Your task to perform on an android device: find photos in the google photos app Image 0: 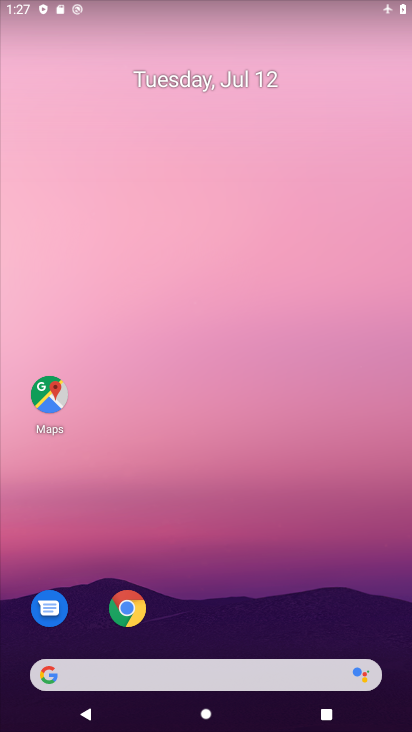
Step 0: press home button
Your task to perform on an android device: find photos in the google photos app Image 1: 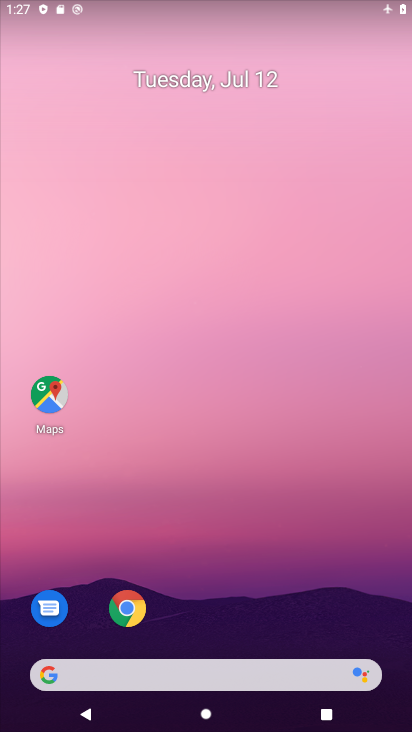
Step 1: drag from (293, 623) to (205, 7)
Your task to perform on an android device: find photos in the google photos app Image 2: 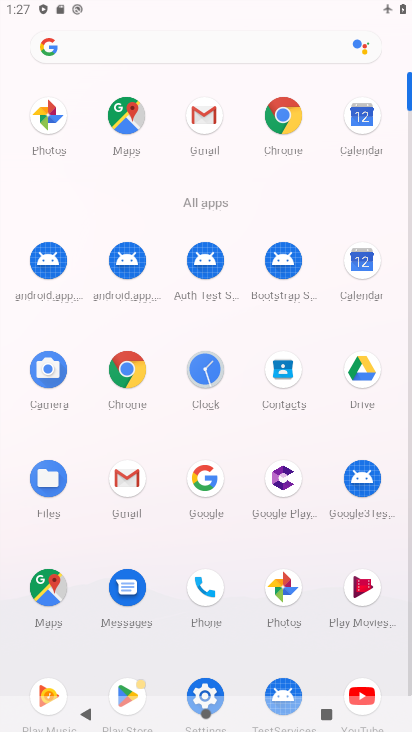
Step 2: click (286, 580)
Your task to perform on an android device: find photos in the google photos app Image 3: 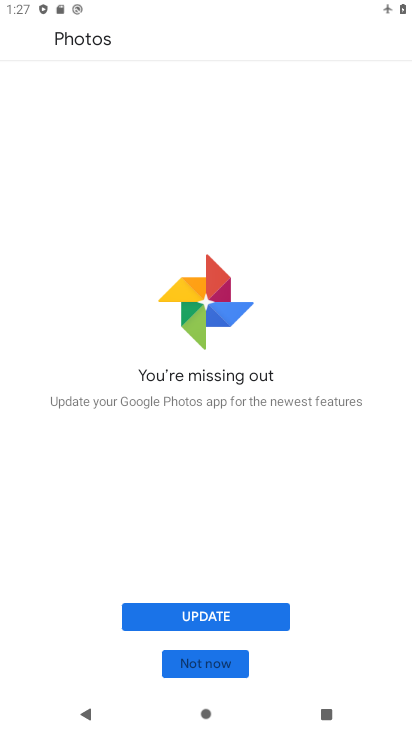
Step 3: click (213, 674)
Your task to perform on an android device: find photos in the google photos app Image 4: 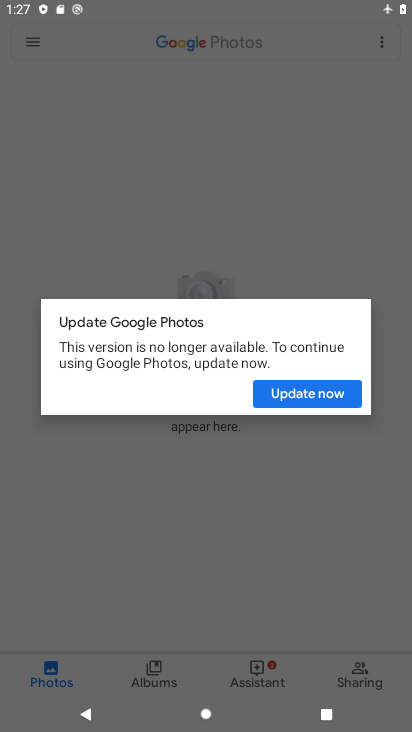
Step 4: click (282, 386)
Your task to perform on an android device: find photos in the google photos app Image 5: 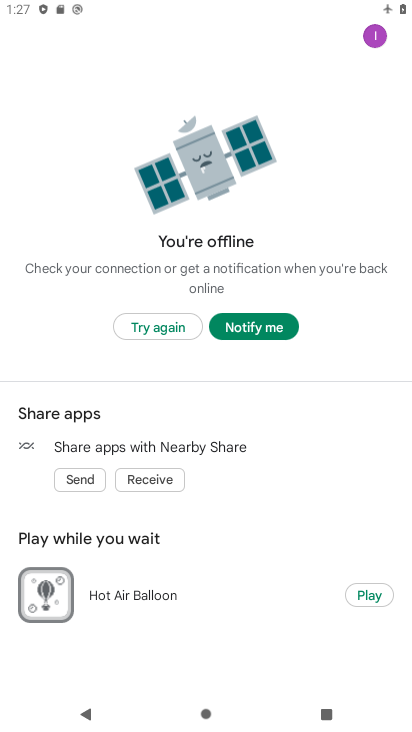
Step 5: task complete